Your task to perform on an android device: show emergency info Image 0: 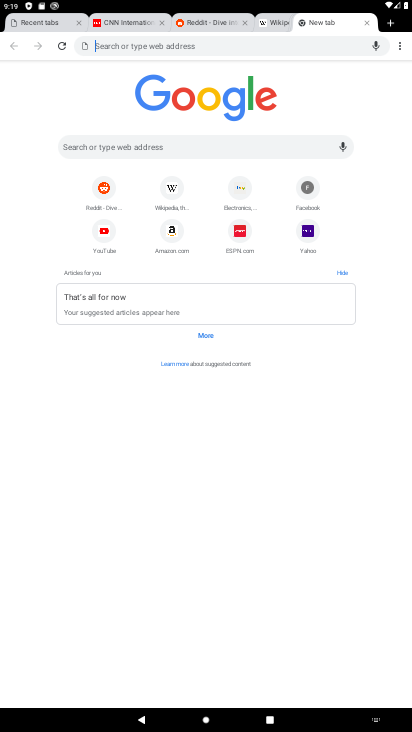
Step 0: press home button
Your task to perform on an android device: show emergency info Image 1: 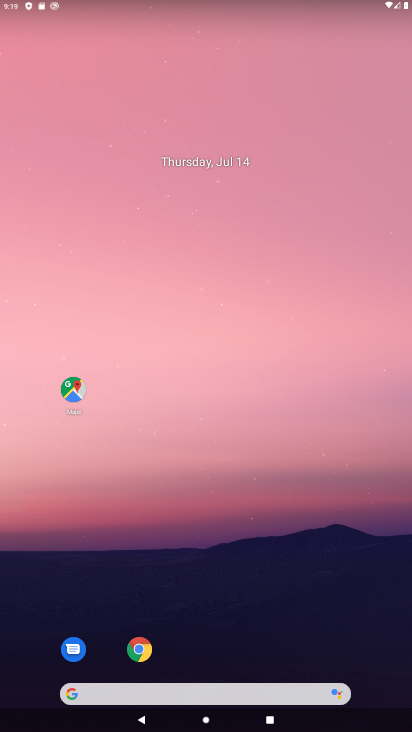
Step 1: drag from (212, 656) to (237, 95)
Your task to perform on an android device: show emergency info Image 2: 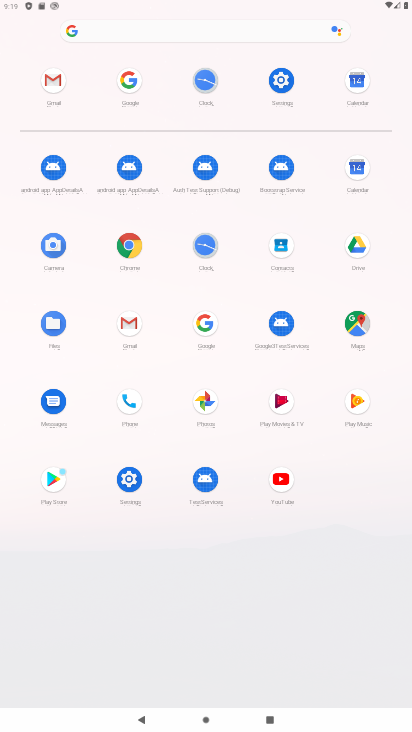
Step 2: click (296, 82)
Your task to perform on an android device: show emergency info Image 3: 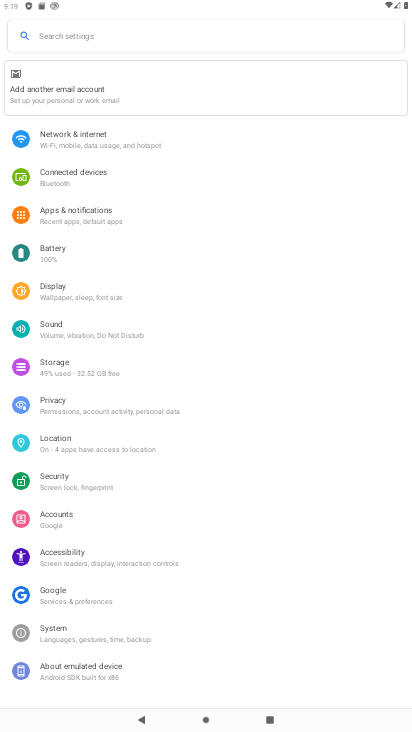
Step 3: drag from (121, 587) to (196, 91)
Your task to perform on an android device: show emergency info Image 4: 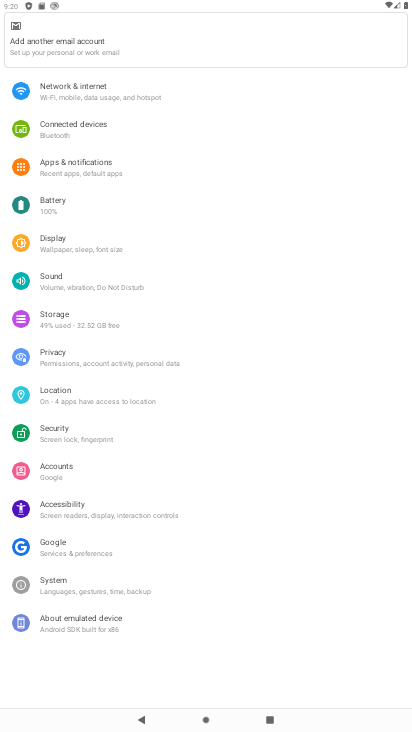
Step 4: click (31, 625)
Your task to perform on an android device: show emergency info Image 5: 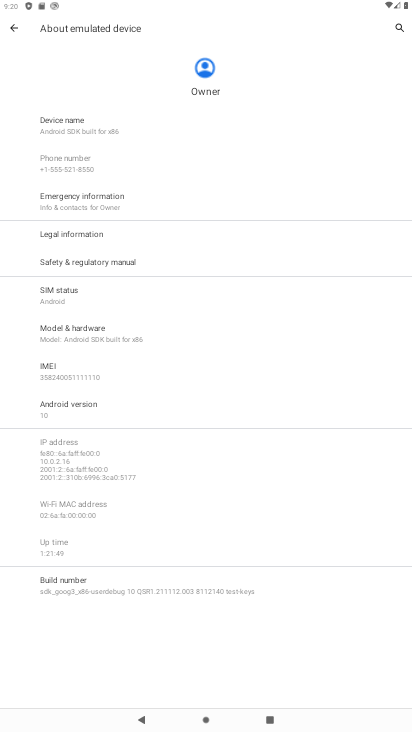
Step 5: click (113, 201)
Your task to perform on an android device: show emergency info Image 6: 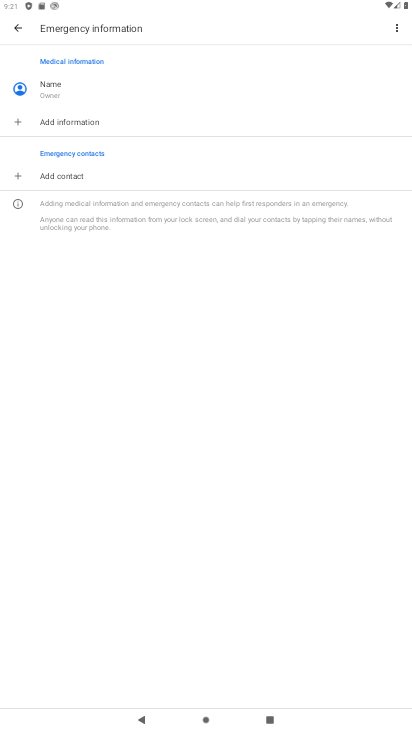
Step 6: task complete